Your task to perform on an android device: all mails in gmail Image 0: 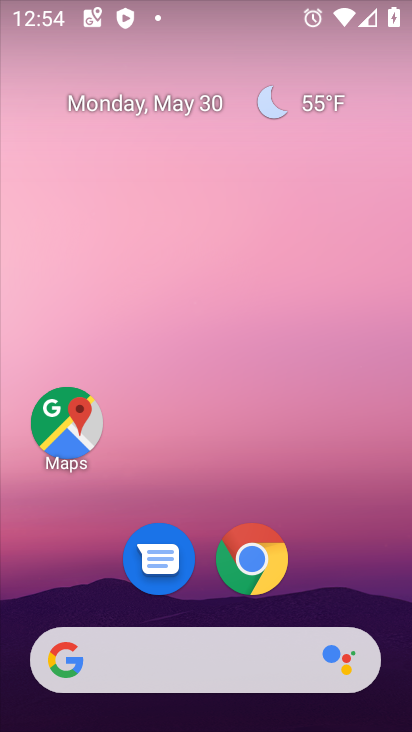
Step 0: drag from (41, 527) to (141, 115)
Your task to perform on an android device: all mails in gmail Image 1: 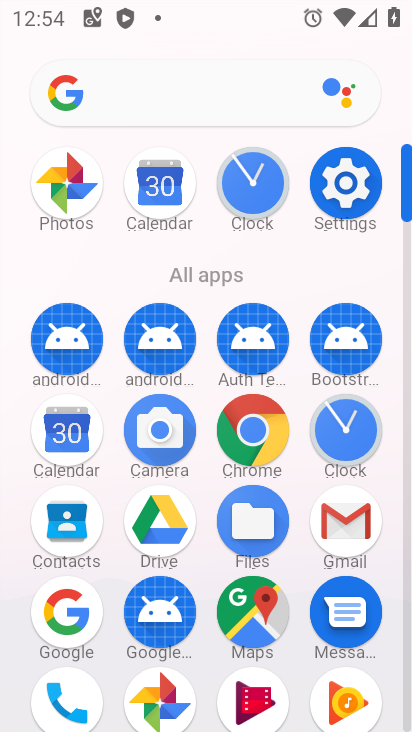
Step 1: click (342, 518)
Your task to perform on an android device: all mails in gmail Image 2: 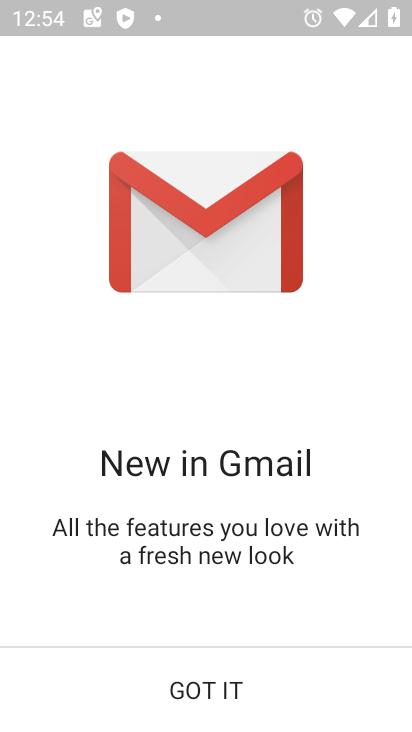
Step 2: click (200, 674)
Your task to perform on an android device: all mails in gmail Image 3: 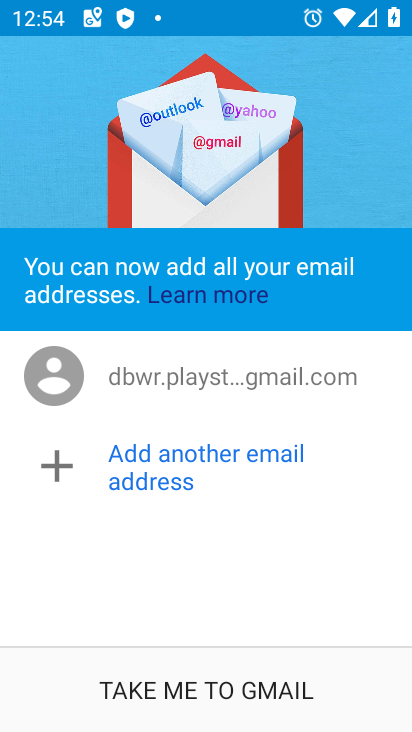
Step 3: click (197, 692)
Your task to perform on an android device: all mails in gmail Image 4: 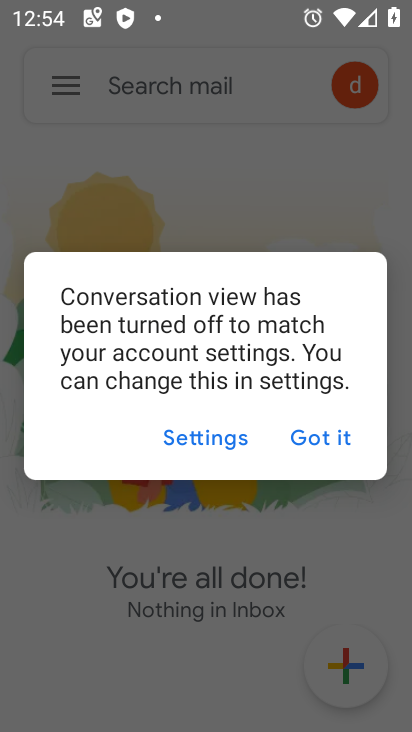
Step 4: click (329, 441)
Your task to perform on an android device: all mails in gmail Image 5: 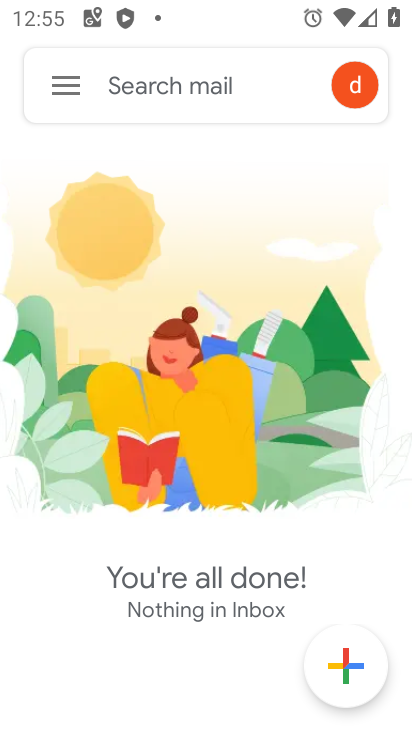
Step 5: click (67, 85)
Your task to perform on an android device: all mails in gmail Image 6: 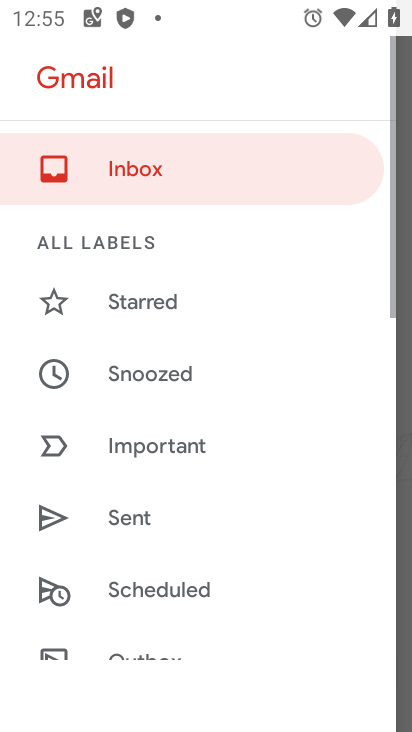
Step 6: drag from (155, 660) to (192, 244)
Your task to perform on an android device: all mails in gmail Image 7: 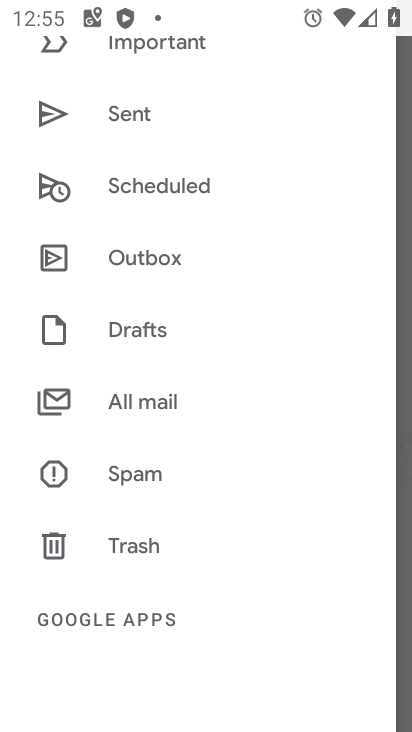
Step 7: click (132, 397)
Your task to perform on an android device: all mails in gmail Image 8: 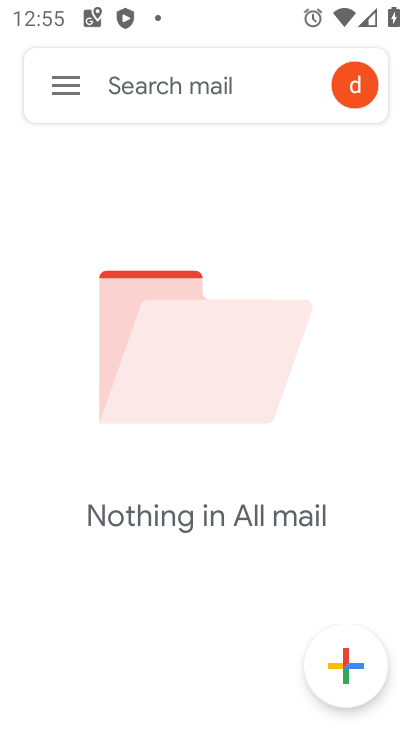
Step 8: task complete